Your task to perform on an android device: Open Youtube and go to the subscriptions tab Image 0: 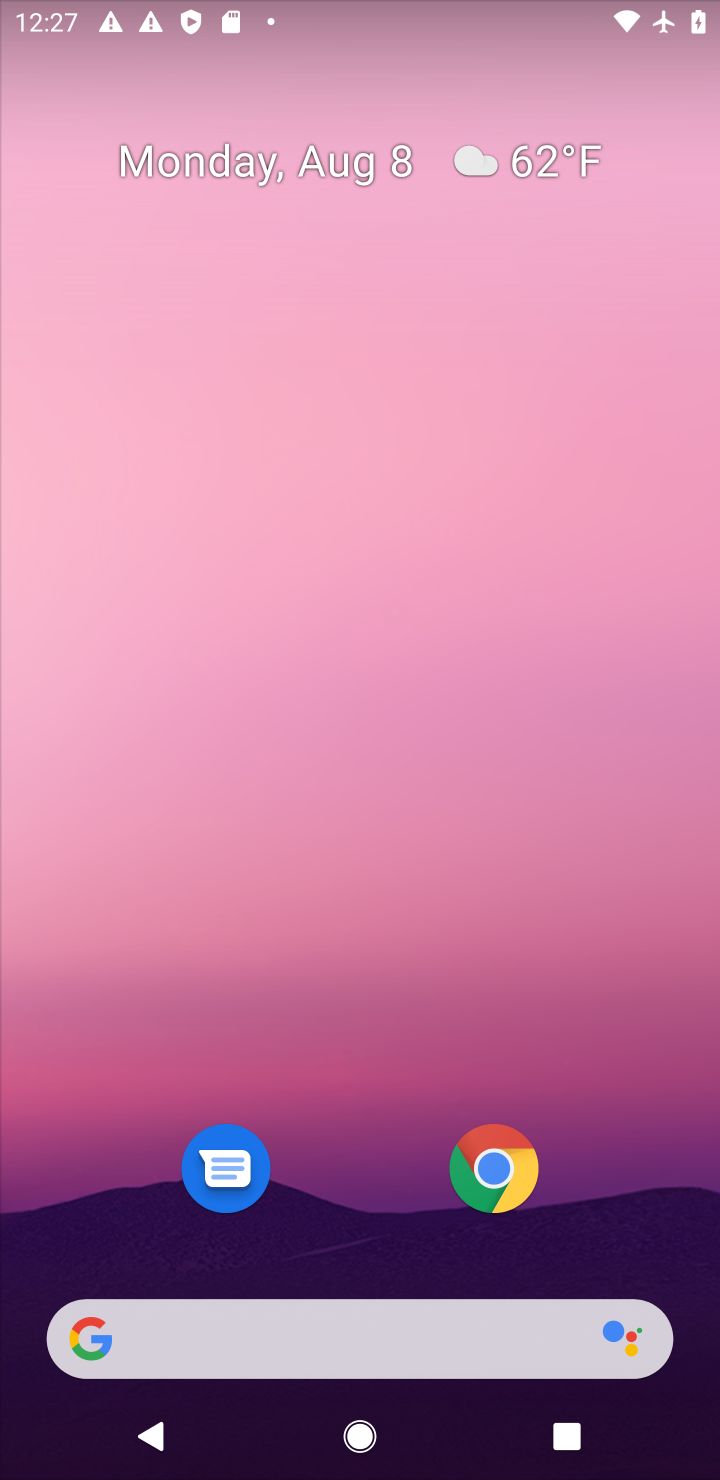
Step 0: drag from (363, 1269) to (262, 157)
Your task to perform on an android device: Open Youtube and go to the subscriptions tab Image 1: 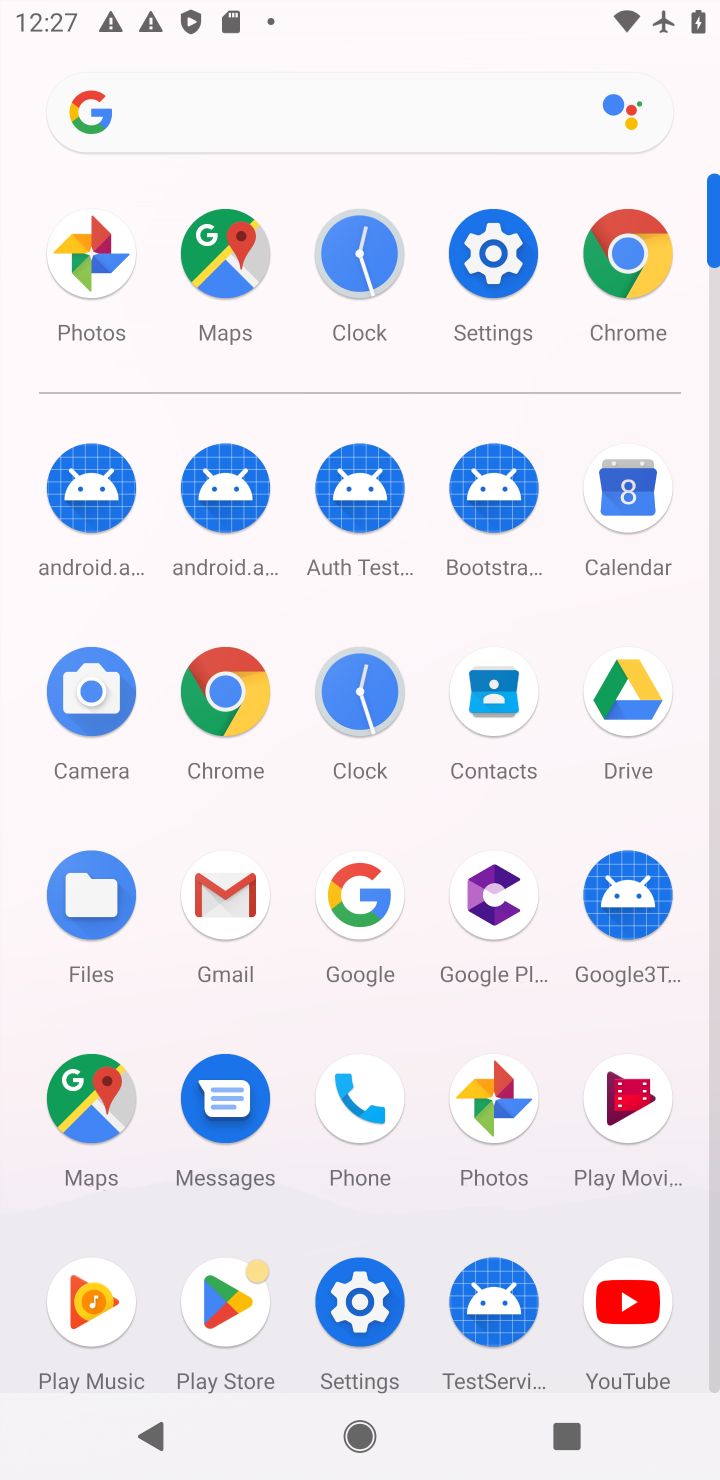
Step 1: click (663, 1319)
Your task to perform on an android device: Open Youtube and go to the subscriptions tab Image 2: 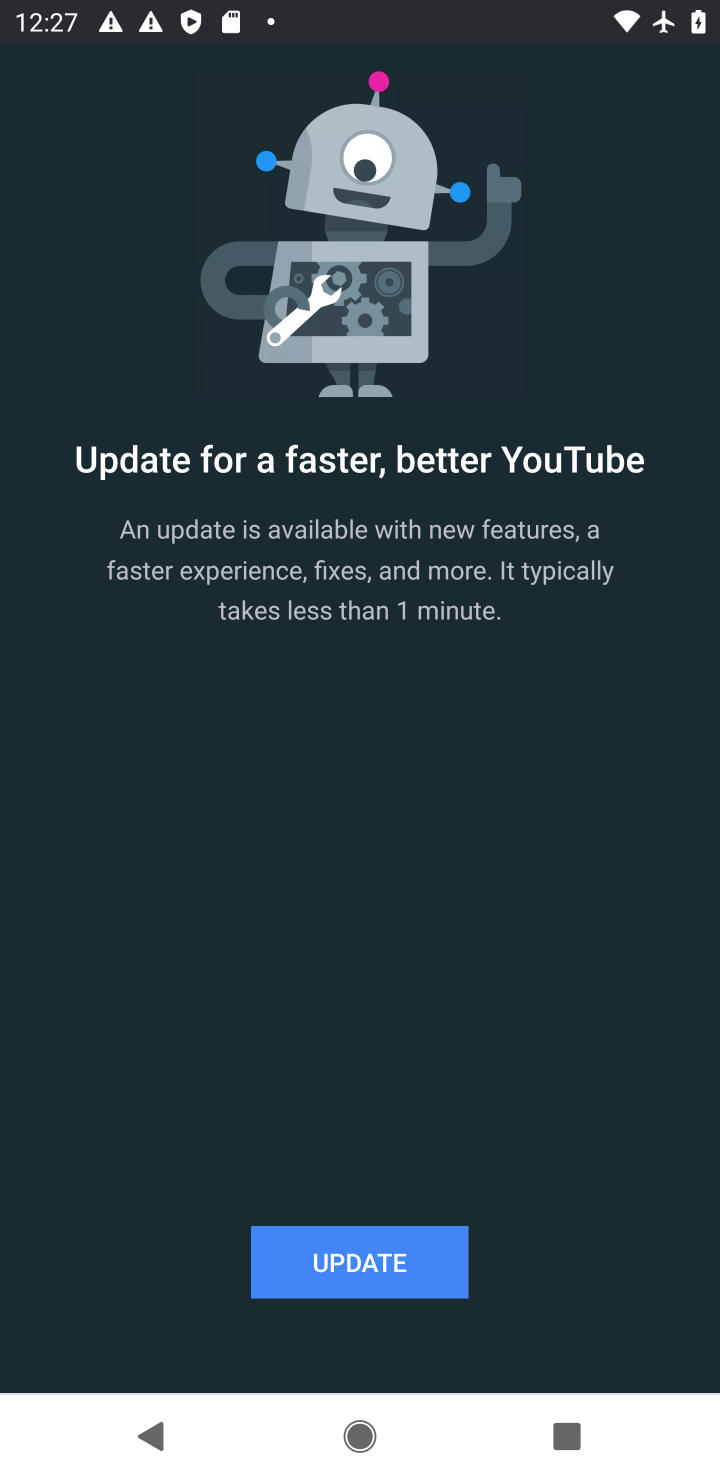
Step 2: click (426, 1286)
Your task to perform on an android device: Open Youtube and go to the subscriptions tab Image 3: 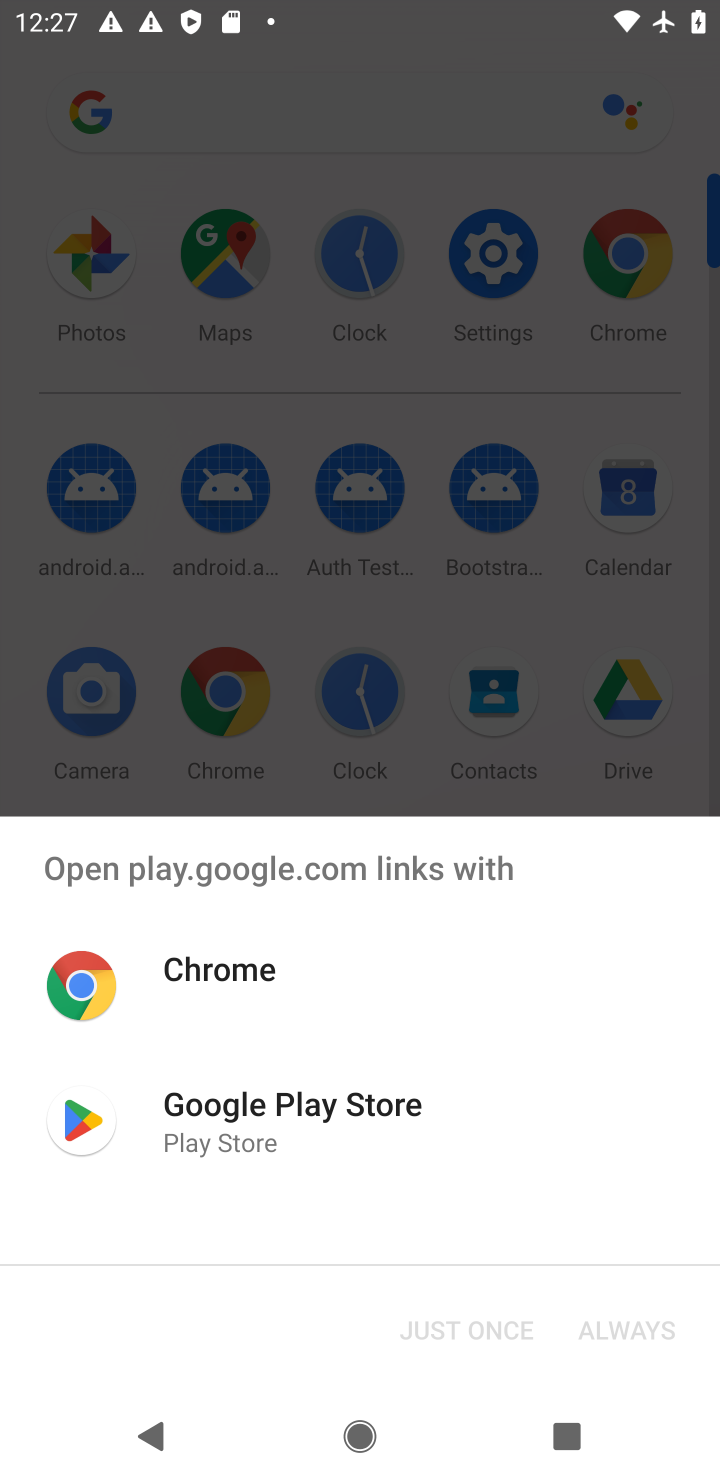
Step 3: click (240, 1000)
Your task to perform on an android device: Open Youtube and go to the subscriptions tab Image 4: 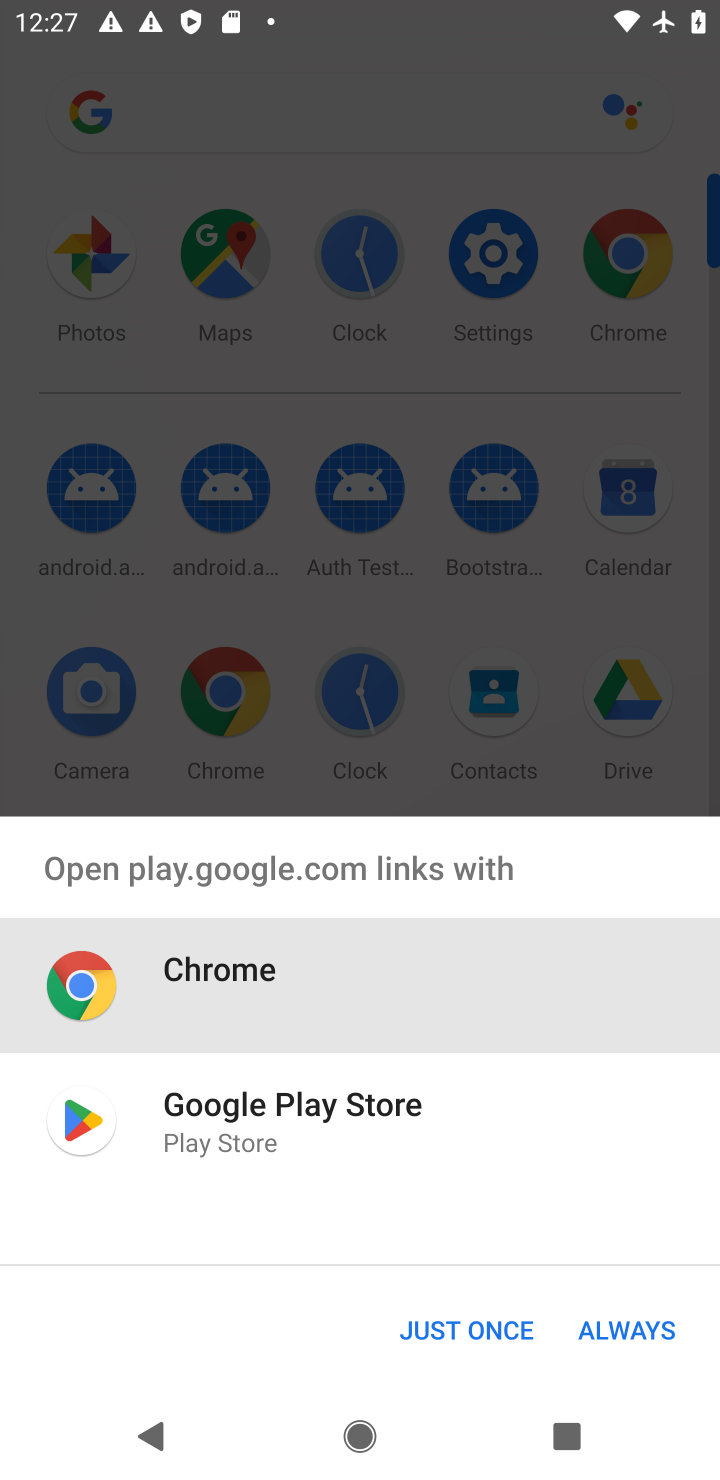
Step 4: click (433, 1320)
Your task to perform on an android device: Open Youtube and go to the subscriptions tab Image 5: 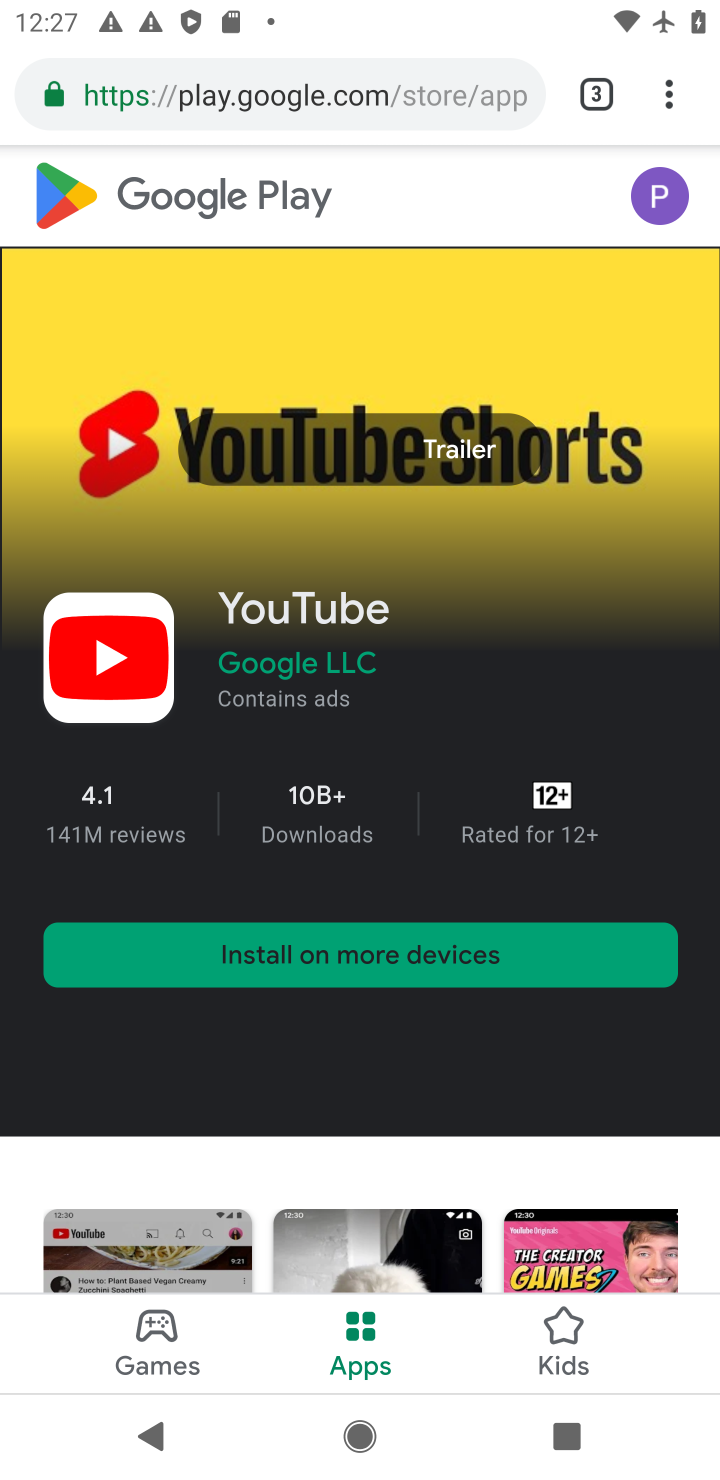
Step 5: task complete